Your task to perform on an android device: Go to calendar. Show me events next week Image 0: 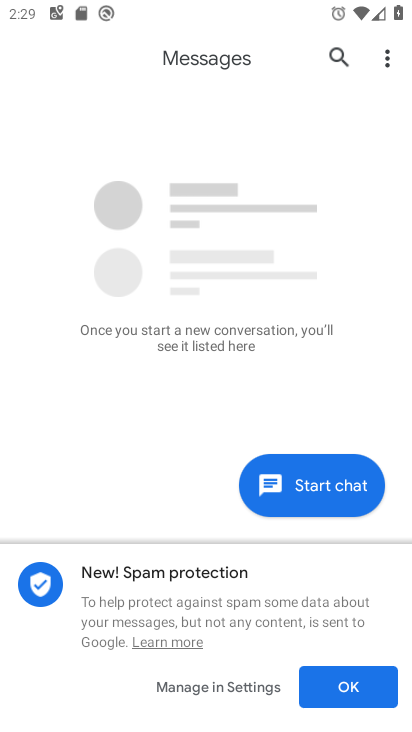
Step 0: press home button
Your task to perform on an android device: Go to calendar. Show me events next week Image 1: 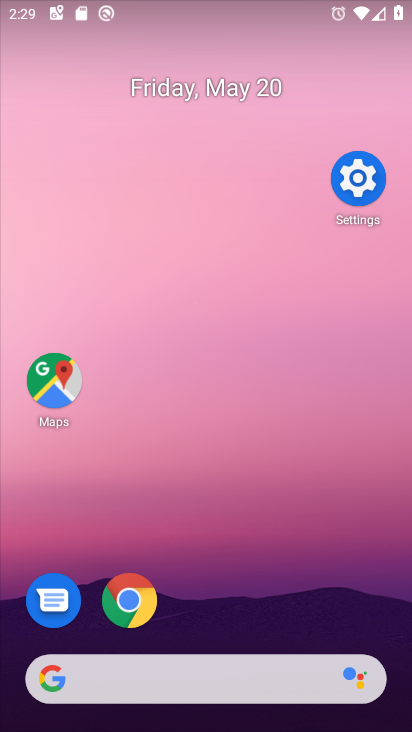
Step 1: drag from (195, 579) to (245, 177)
Your task to perform on an android device: Go to calendar. Show me events next week Image 2: 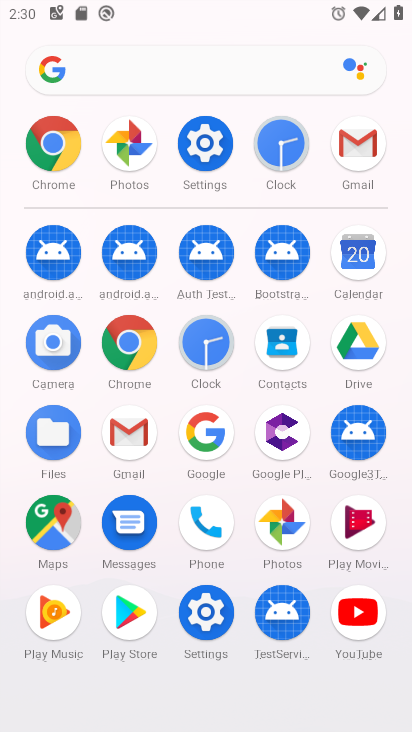
Step 2: click (359, 266)
Your task to perform on an android device: Go to calendar. Show me events next week Image 3: 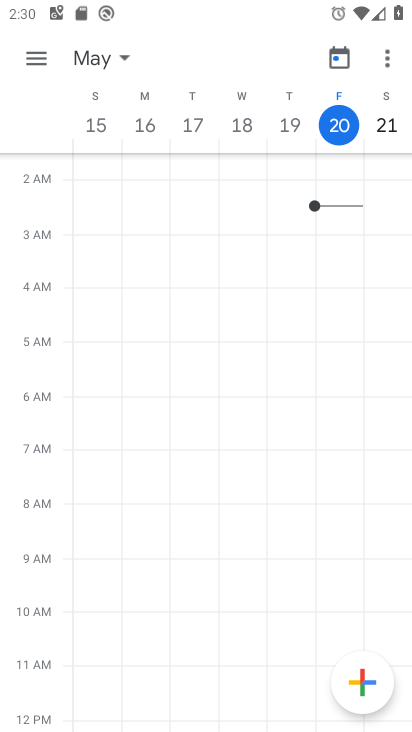
Step 3: drag from (289, 124) to (28, 103)
Your task to perform on an android device: Go to calendar. Show me events next week Image 4: 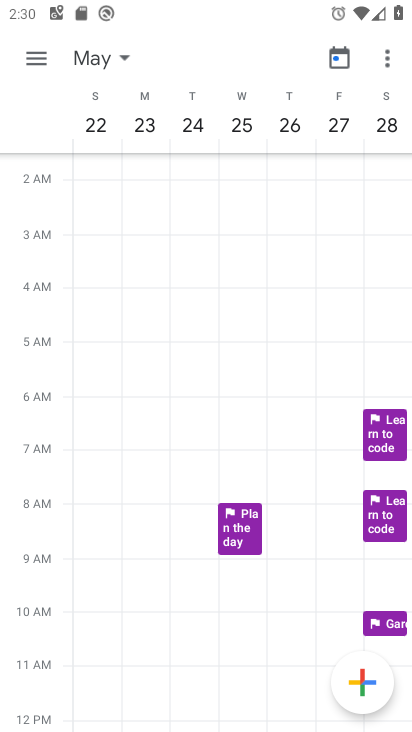
Step 4: click (46, 59)
Your task to perform on an android device: Go to calendar. Show me events next week Image 5: 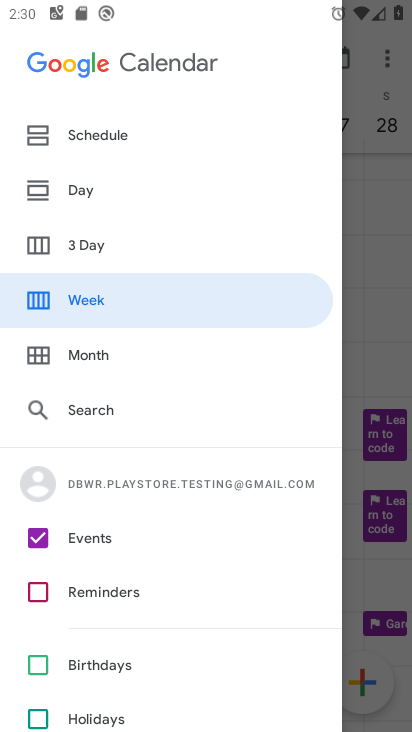
Step 5: click (145, 309)
Your task to perform on an android device: Go to calendar. Show me events next week Image 6: 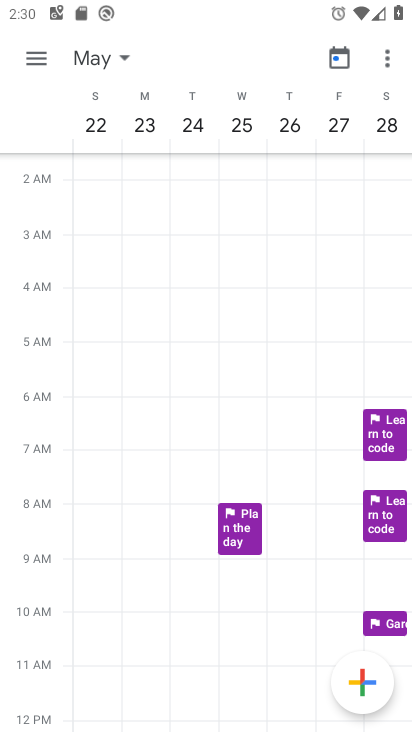
Step 6: task complete